Your task to perform on an android device: What is the news today? Image 0: 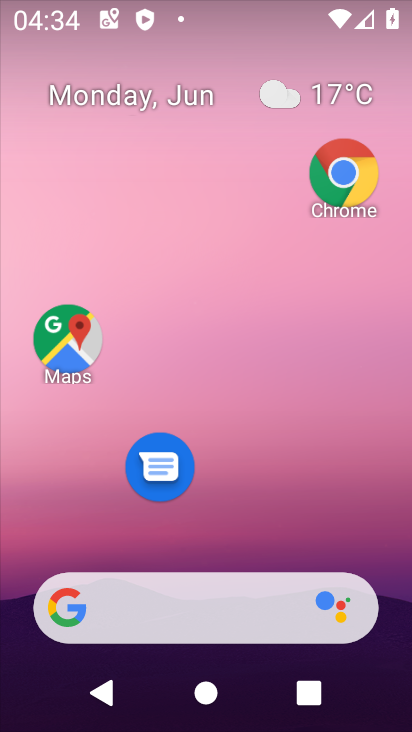
Step 0: click (347, 184)
Your task to perform on an android device: What is the news today? Image 1: 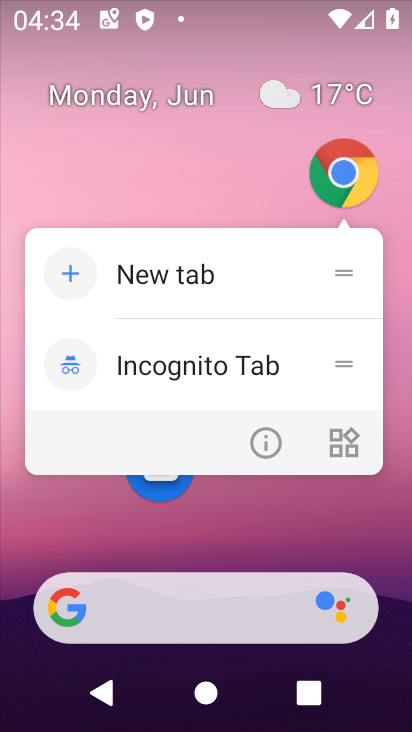
Step 1: click (350, 175)
Your task to perform on an android device: What is the news today? Image 2: 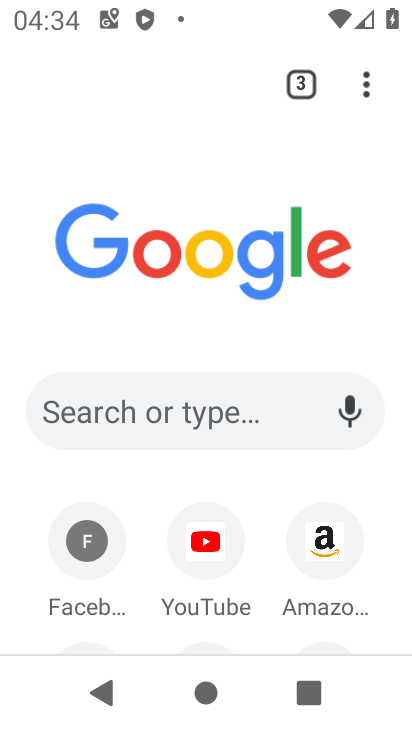
Step 2: click (238, 419)
Your task to perform on an android device: What is the news today? Image 3: 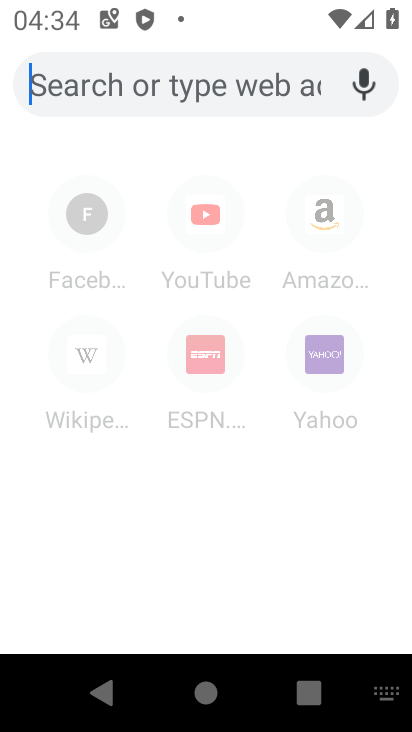
Step 3: type "news today"
Your task to perform on an android device: What is the news today? Image 4: 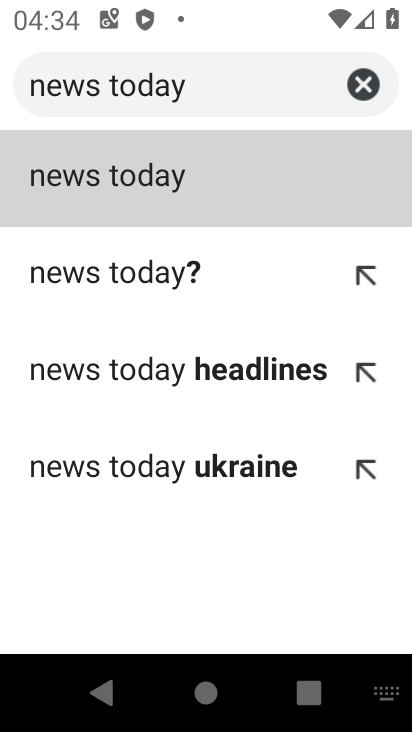
Step 4: click (185, 272)
Your task to perform on an android device: What is the news today? Image 5: 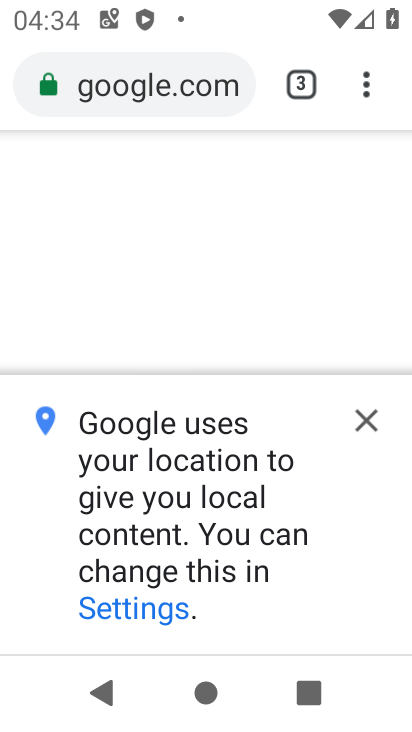
Step 5: click (375, 423)
Your task to perform on an android device: What is the news today? Image 6: 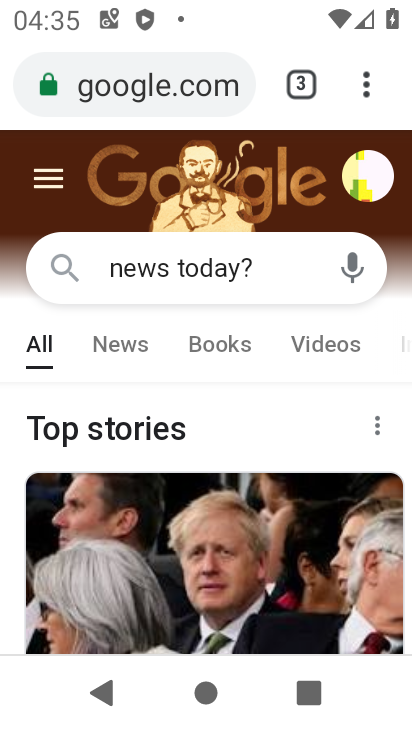
Step 6: task complete